Your task to perform on an android device: Show me recent news Image 0: 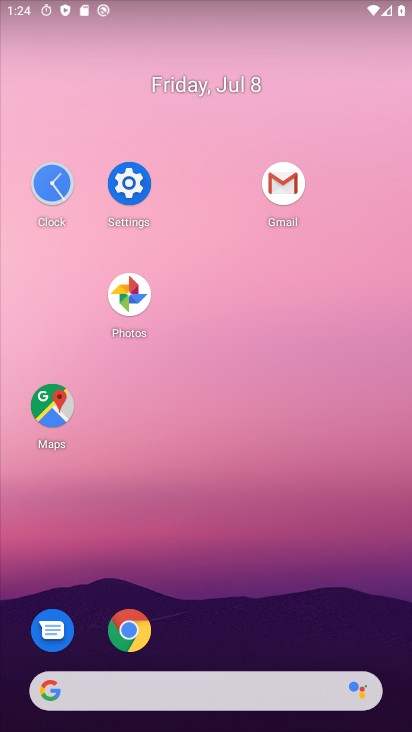
Step 0: click (120, 632)
Your task to perform on an android device: Show me recent news Image 1: 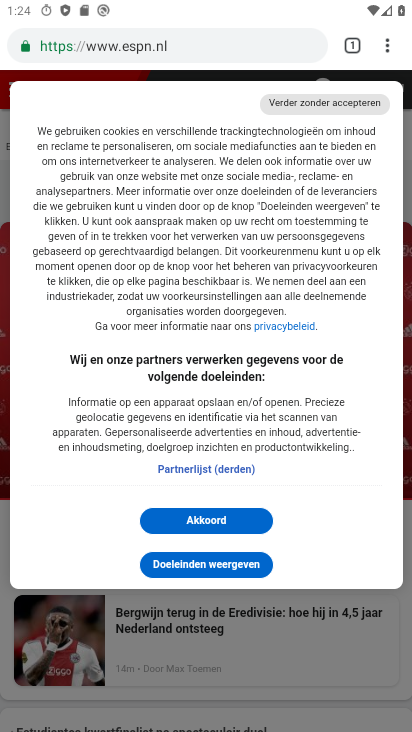
Step 1: click (346, 42)
Your task to perform on an android device: Show me recent news Image 2: 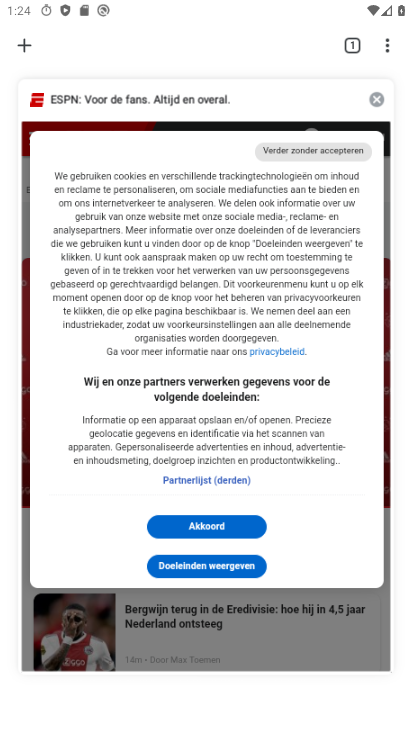
Step 2: click (27, 46)
Your task to perform on an android device: Show me recent news Image 3: 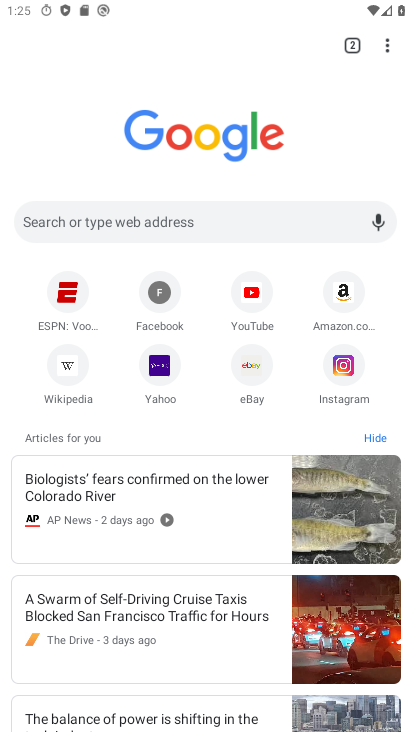
Step 3: click (250, 217)
Your task to perform on an android device: Show me recent news Image 4: 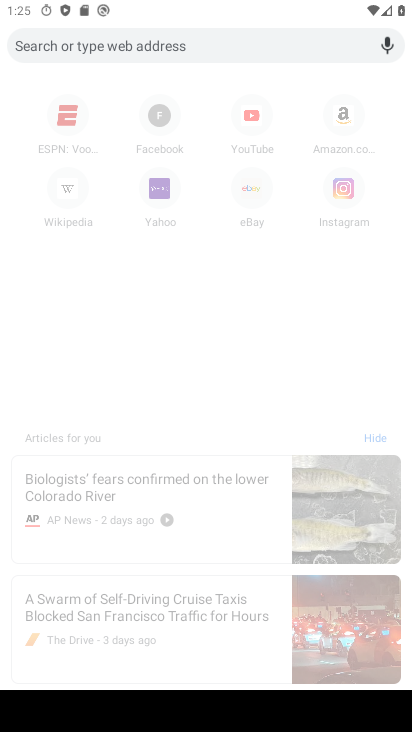
Step 4: type "recent news"
Your task to perform on an android device: Show me recent news Image 5: 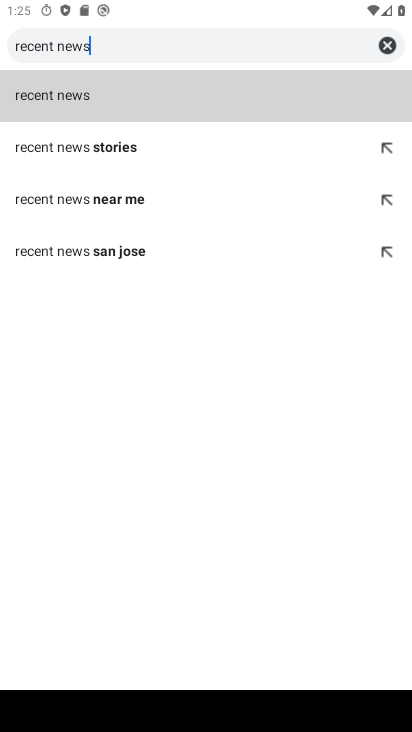
Step 5: click (254, 99)
Your task to perform on an android device: Show me recent news Image 6: 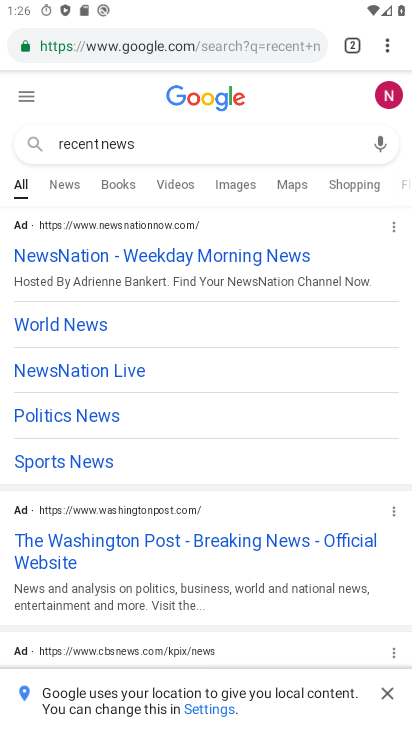
Step 6: click (120, 247)
Your task to perform on an android device: Show me recent news Image 7: 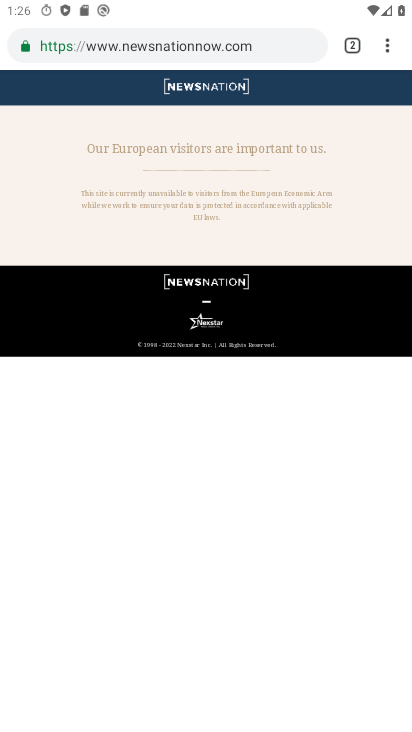
Step 7: task complete